Your task to perform on an android device: Open the calendar app, open the side menu, and click the "Day" option Image 0: 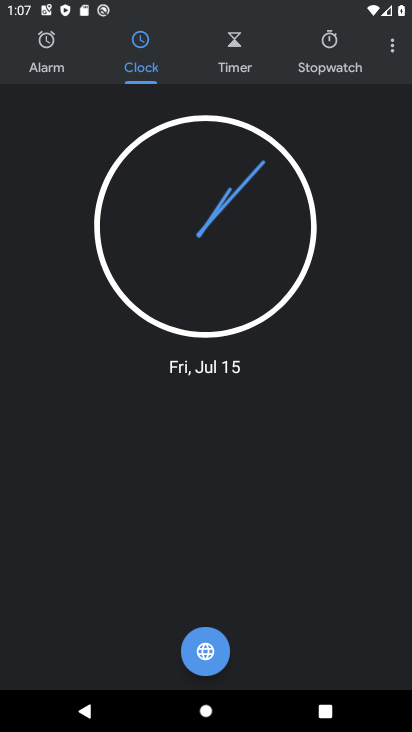
Step 0: press home button
Your task to perform on an android device: Open the calendar app, open the side menu, and click the "Day" option Image 1: 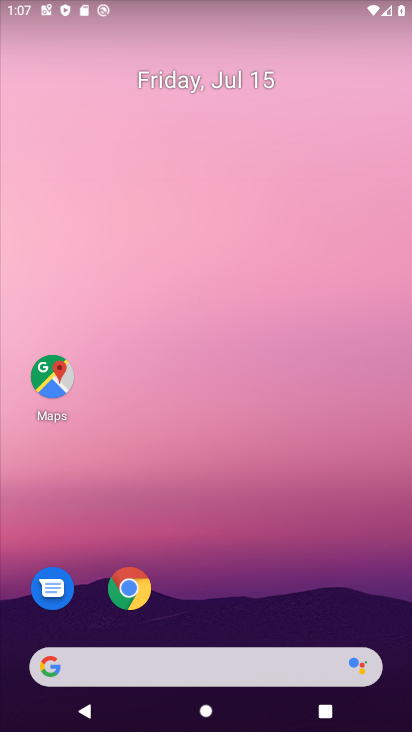
Step 1: drag from (356, 615) to (319, 56)
Your task to perform on an android device: Open the calendar app, open the side menu, and click the "Day" option Image 2: 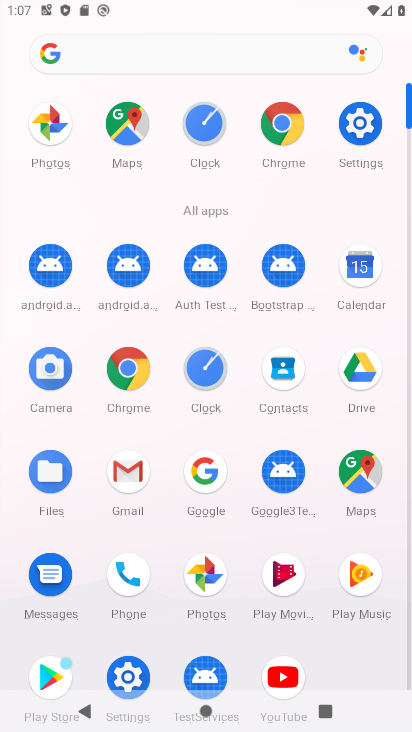
Step 2: click (356, 265)
Your task to perform on an android device: Open the calendar app, open the side menu, and click the "Day" option Image 3: 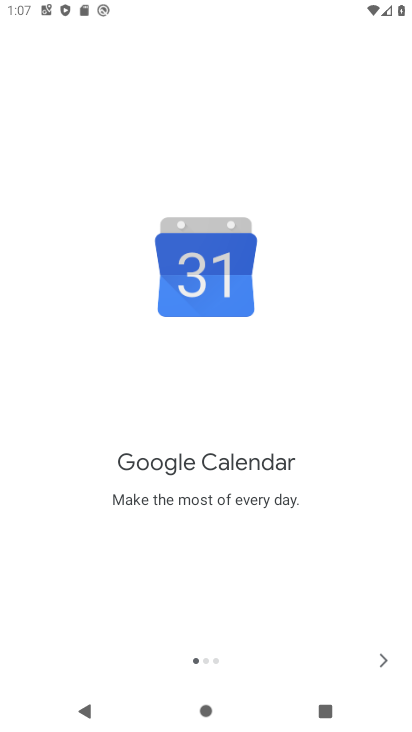
Step 3: click (384, 662)
Your task to perform on an android device: Open the calendar app, open the side menu, and click the "Day" option Image 4: 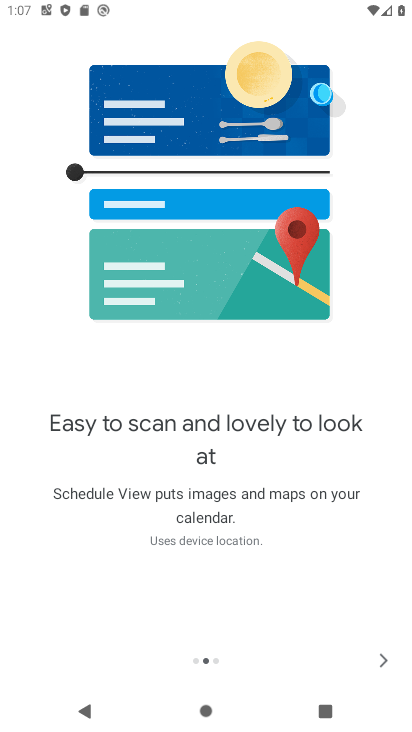
Step 4: click (384, 662)
Your task to perform on an android device: Open the calendar app, open the side menu, and click the "Day" option Image 5: 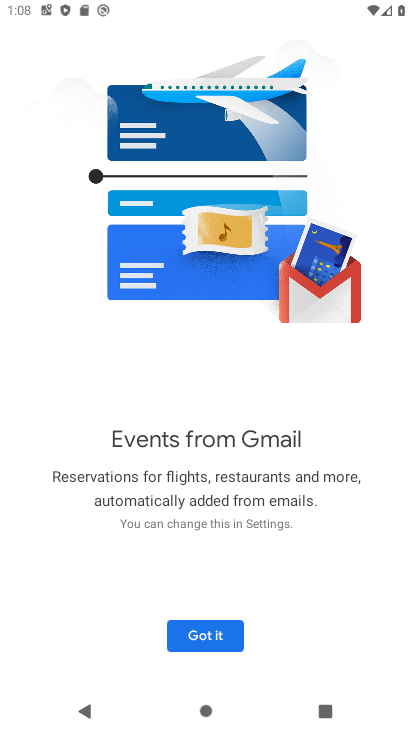
Step 5: click (201, 634)
Your task to perform on an android device: Open the calendar app, open the side menu, and click the "Day" option Image 6: 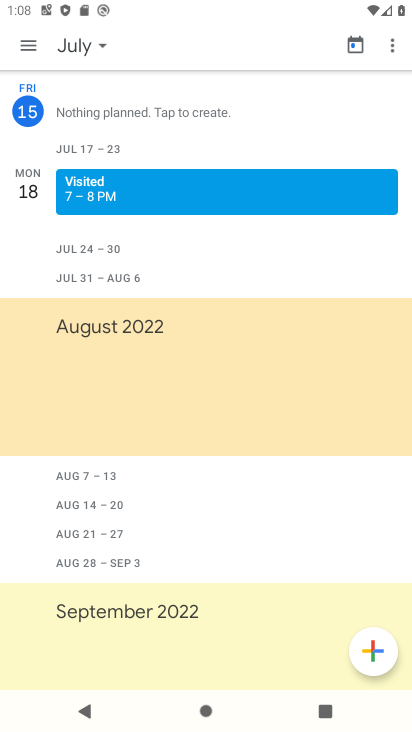
Step 6: click (31, 35)
Your task to perform on an android device: Open the calendar app, open the side menu, and click the "Day" option Image 7: 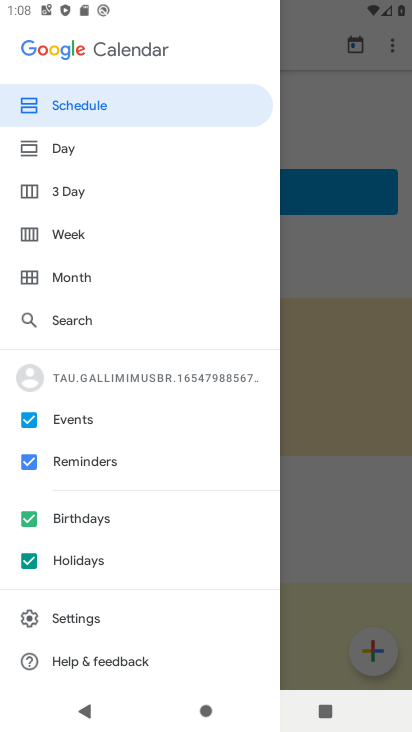
Step 7: click (59, 145)
Your task to perform on an android device: Open the calendar app, open the side menu, and click the "Day" option Image 8: 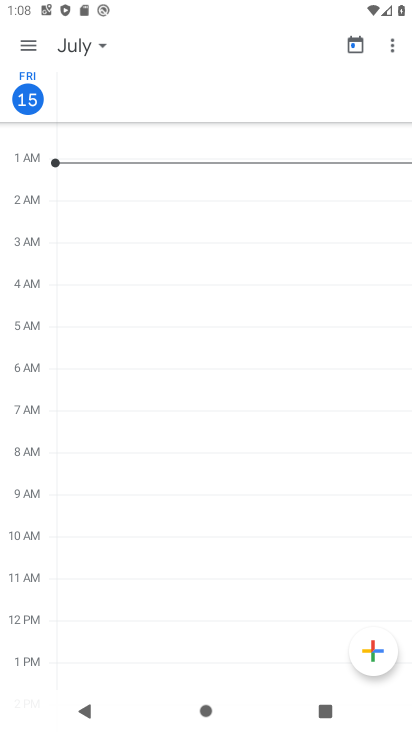
Step 8: task complete